Your task to perform on an android device: Go to Wikipedia Image 0: 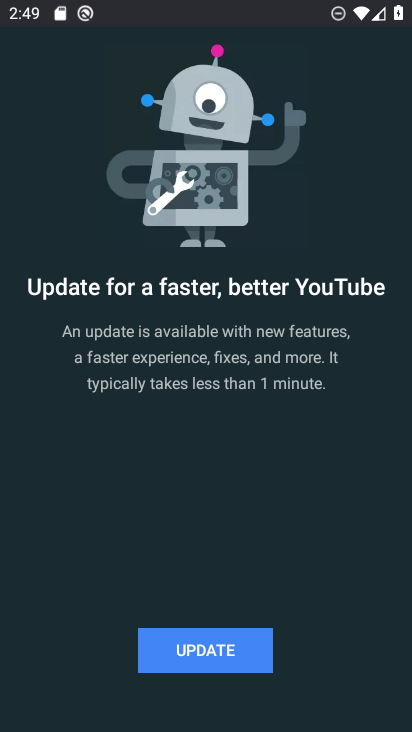
Step 0: press home button
Your task to perform on an android device: Go to Wikipedia Image 1: 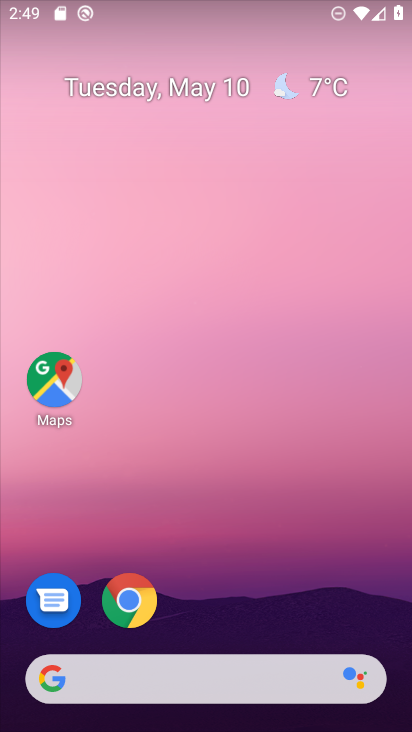
Step 1: click (127, 608)
Your task to perform on an android device: Go to Wikipedia Image 2: 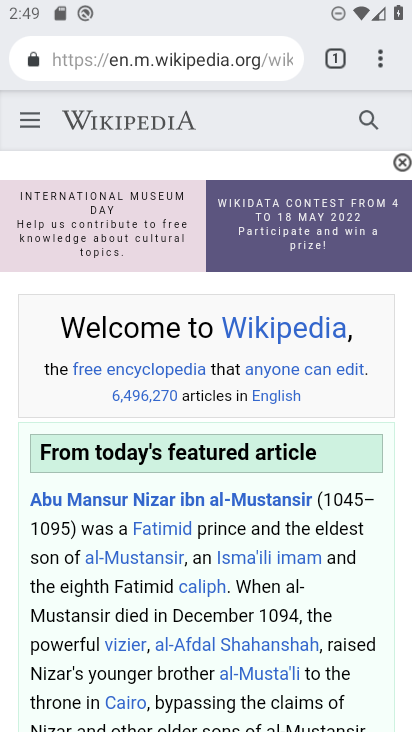
Step 2: task complete